Your task to perform on an android device: Open the web browser Image 0: 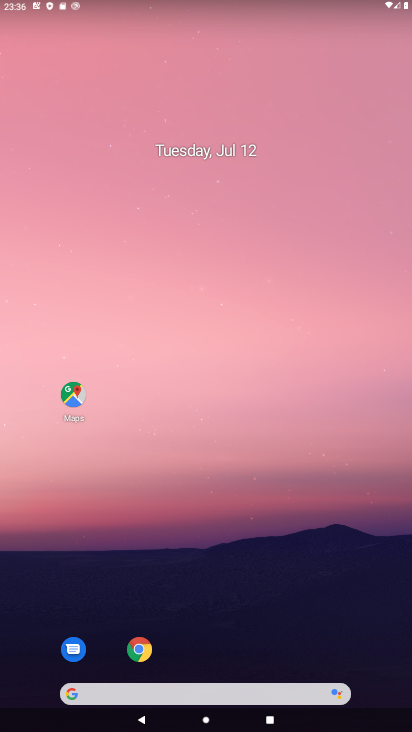
Step 0: click (139, 649)
Your task to perform on an android device: Open the web browser Image 1: 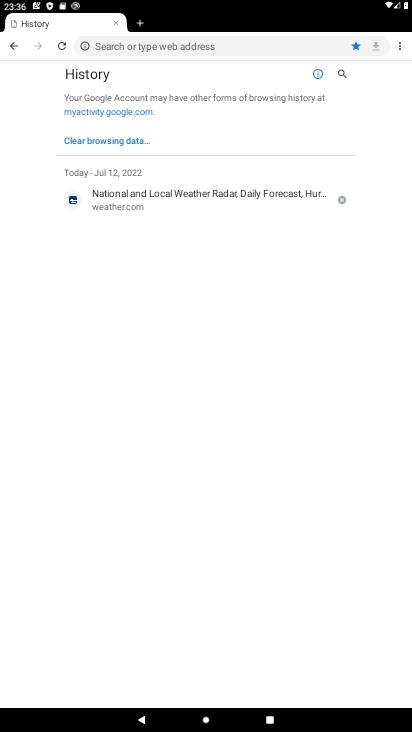
Step 1: task complete